Your task to perform on an android device: find snoozed emails in the gmail app Image 0: 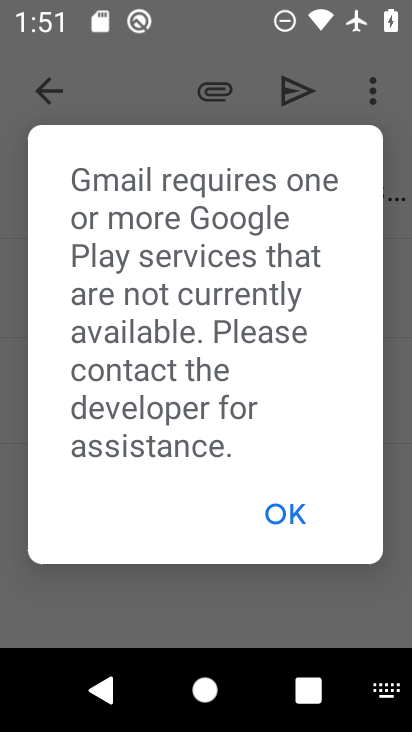
Step 0: press home button
Your task to perform on an android device: find snoozed emails in the gmail app Image 1: 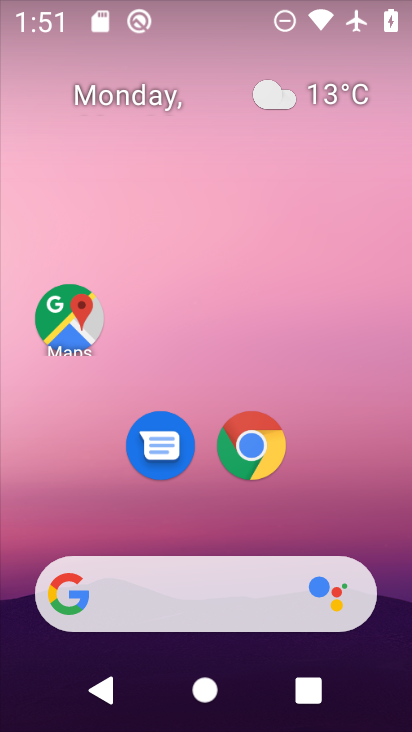
Step 1: drag from (394, 628) to (297, 24)
Your task to perform on an android device: find snoozed emails in the gmail app Image 2: 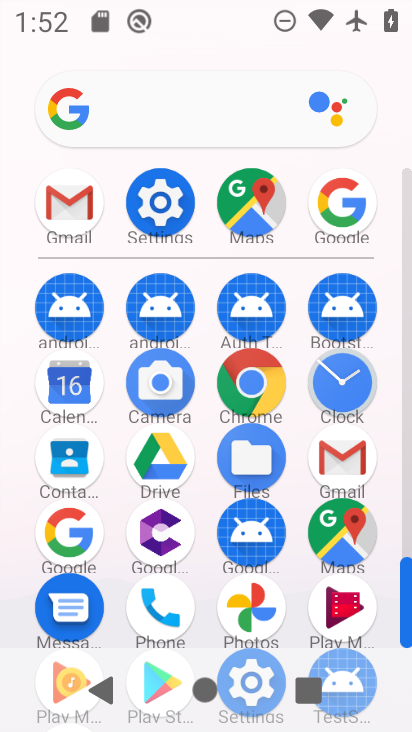
Step 2: click (343, 474)
Your task to perform on an android device: find snoozed emails in the gmail app Image 3: 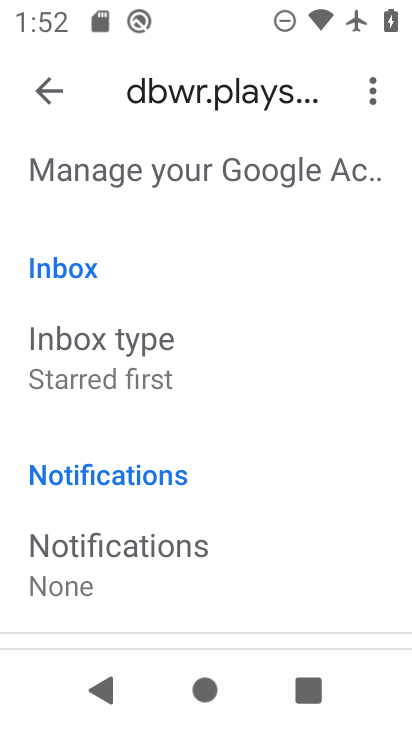
Step 3: click (51, 86)
Your task to perform on an android device: find snoozed emails in the gmail app Image 4: 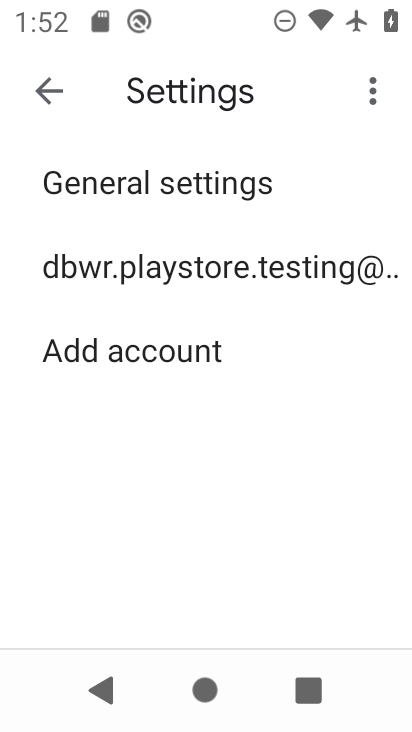
Step 4: press back button
Your task to perform on an android device: find snoozed emails in the gmail app Image 5: 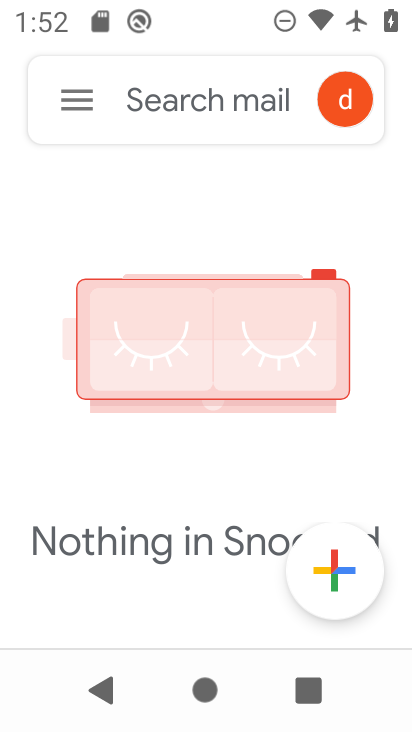
Step 5: click (52, 108)
Your task to perform on an android device: find snoozed emails in the gmail app Image 6: 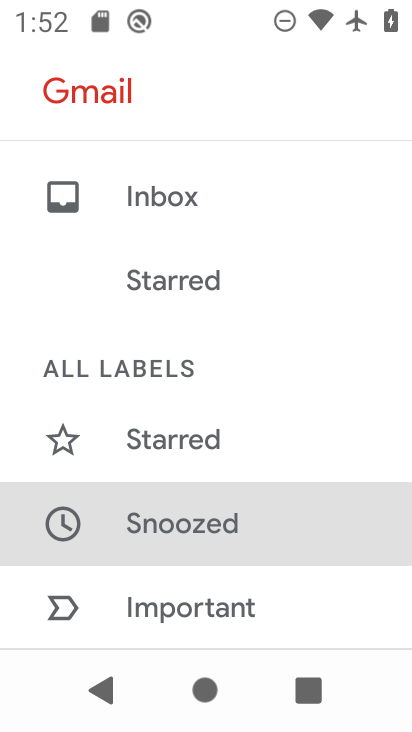
Step 6: drag from (129, 595) to (156, 448)
Your task to perform on an android device: find snoozed emails in the gmail app Image 7: 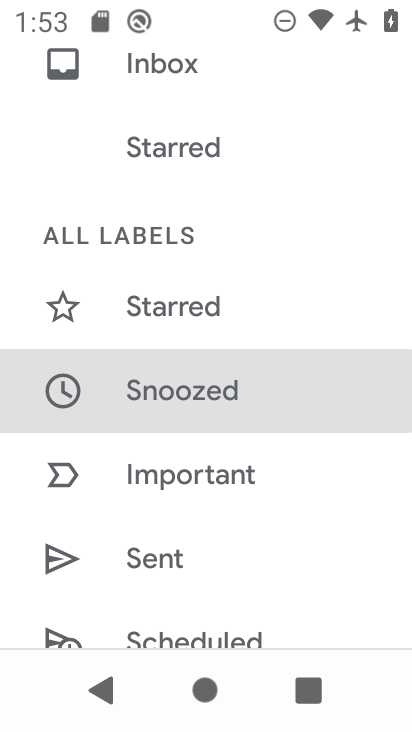
Step 7: click (218, 384)
Your task to perform on an android device: find snoozed emails in the gmail app Image 8: 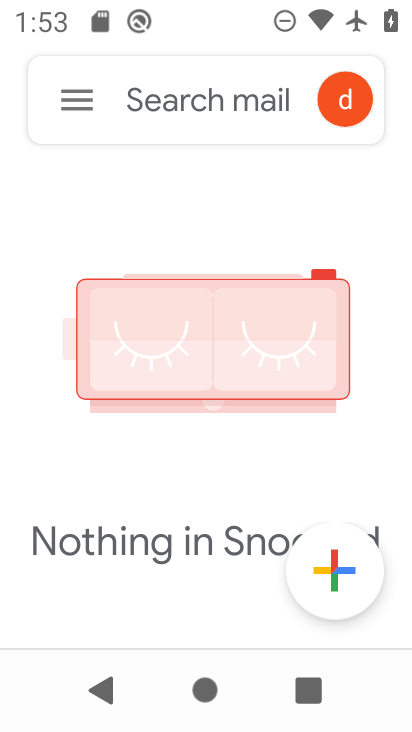
Step 8: task complete